Your task to perform on an android device: turn on notifications settings in the gmail app Image 0: 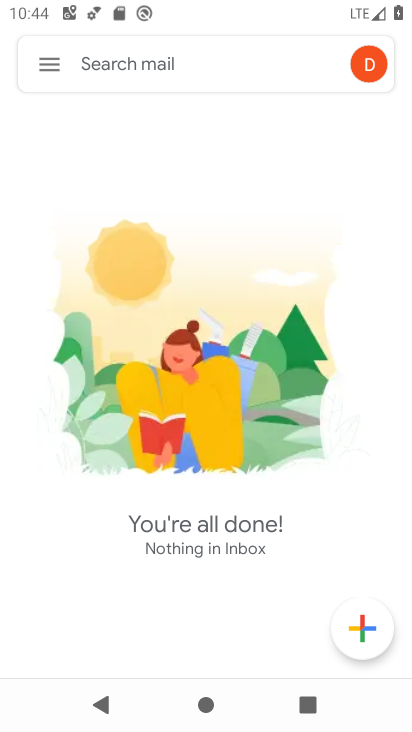
Step 0: press home button
Your task to perform on an android device: turn on notifications settings in the gmail app Image 1: 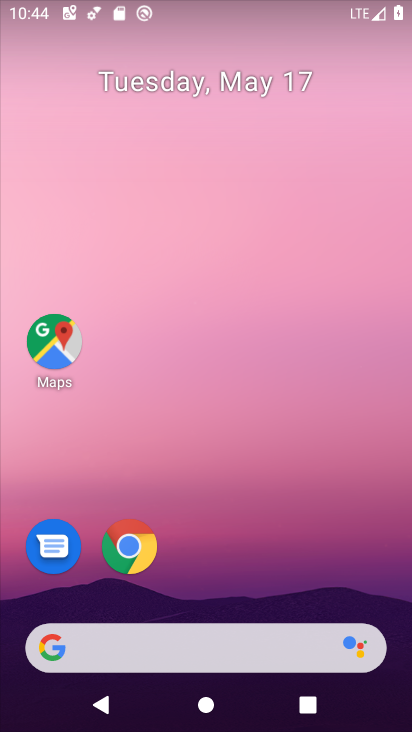
Step 1: drag from (203, 563) to (262, 101)
Your task to perform on an android device: turn on notifications settings in the gmail app Image 2: 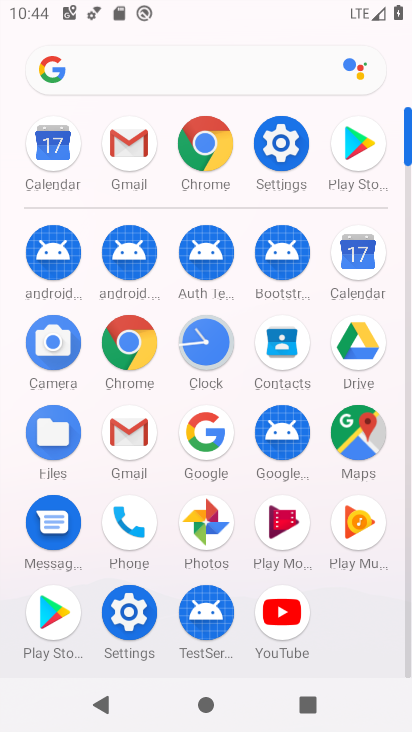
Step 2: click (131, 434)
Your task to perform on an android device: turn on notifications settings in the gmail app Image 3: 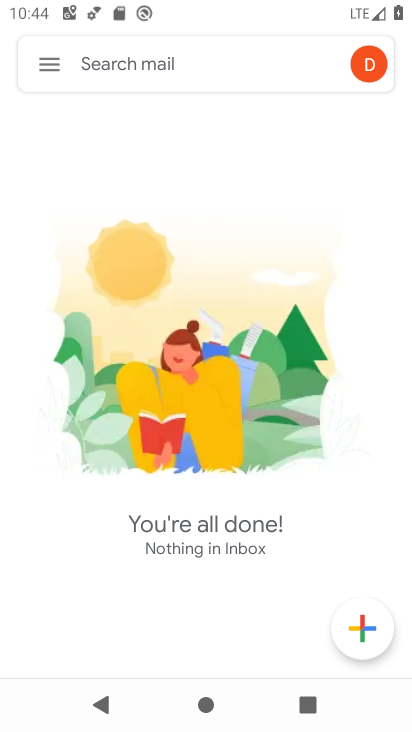
Step 3: click (53, 60)
Your task to perform on an android device: turn on notifications settings in the gmail app Image 4: 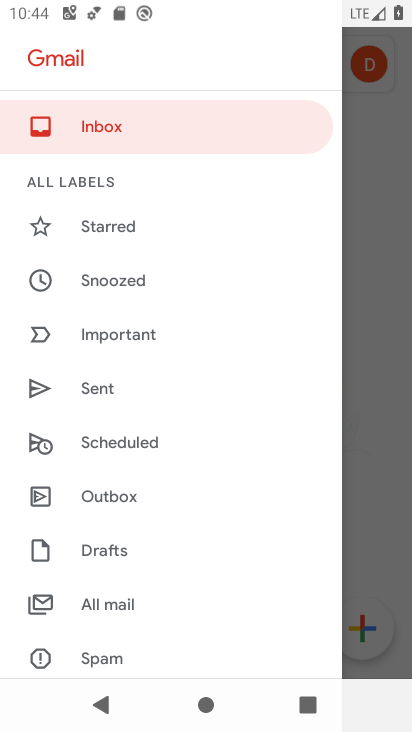
Step 4: drag from (118, 560) to (151, 318)
Your task to perform on an android device: turn on notifications settings in the gmail app Image 5: 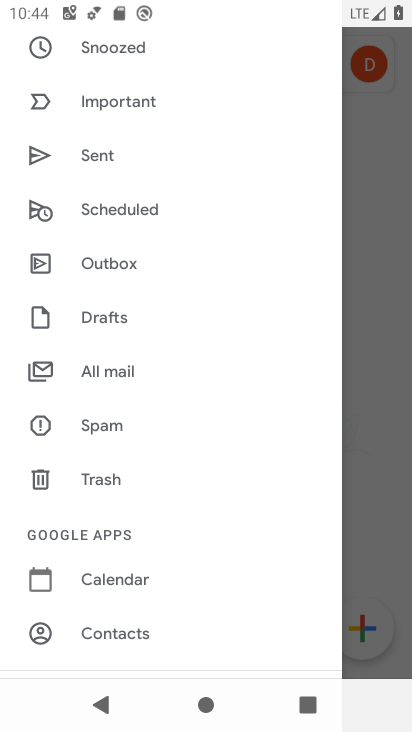
Step 5: drag from (102, 594) to (125, 343)
Your task to perform on an android device: turn on notifications settings in the gmail app Image 6: 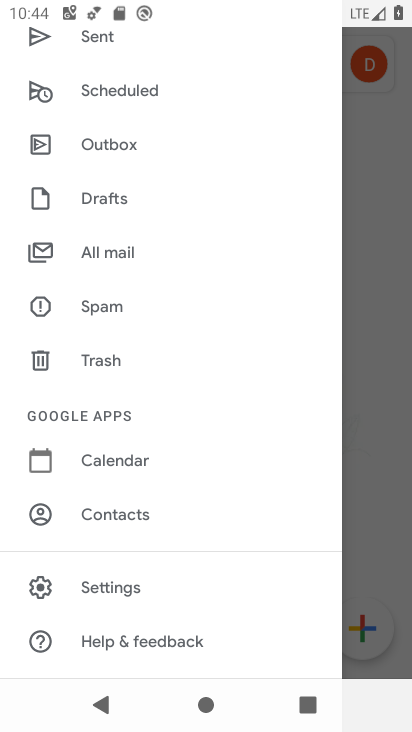
Step 6: click (116, 583)
Your task to perform on an android device: turn on notifications settings in the gmail app Image 7: 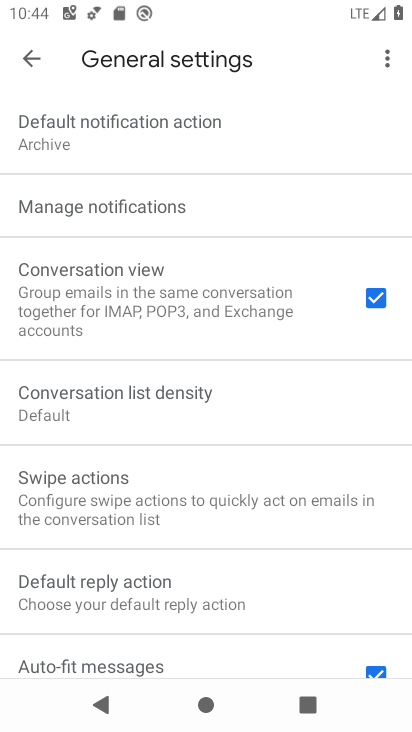
Step 7: drag from (177, 198) to (172, 367)
Your task to perform on an android device: turn on notifications settings in the gmail app Image 8: 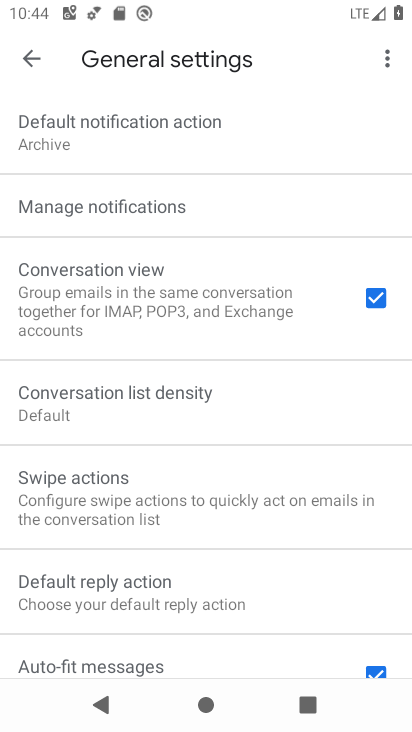
Step 8: click (103, 201)
Your task to perform on an android device: turn on notifications settings in the gmail app Image 9: 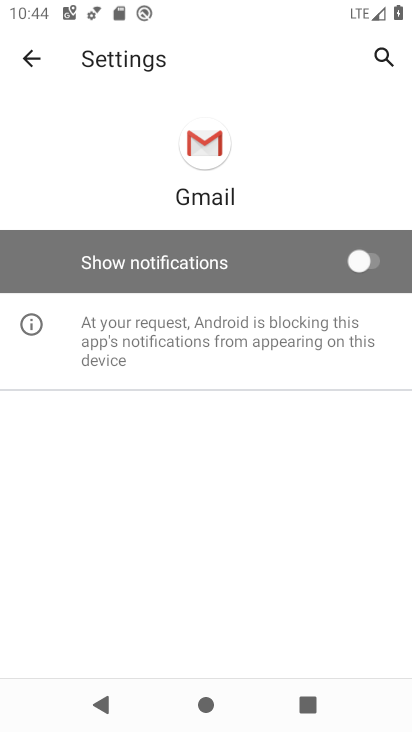
Step 9: click (371, 261)
Your task to perform on an android device: turn on notifications settings in the gmail app Image 10: 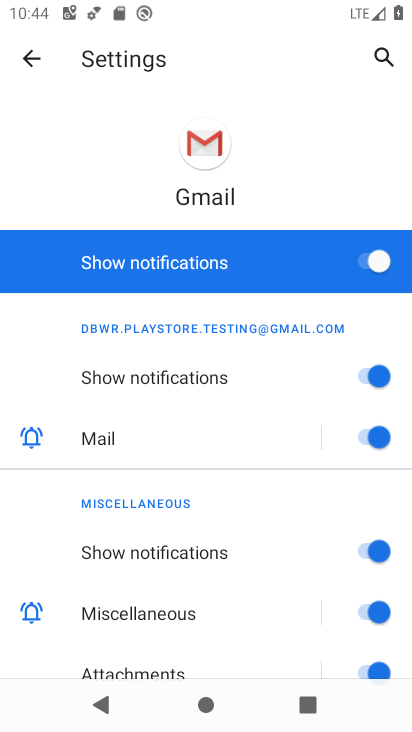
Step 10: task complete